Your task to perform on an android device: clear history in the chrome app Image 0: 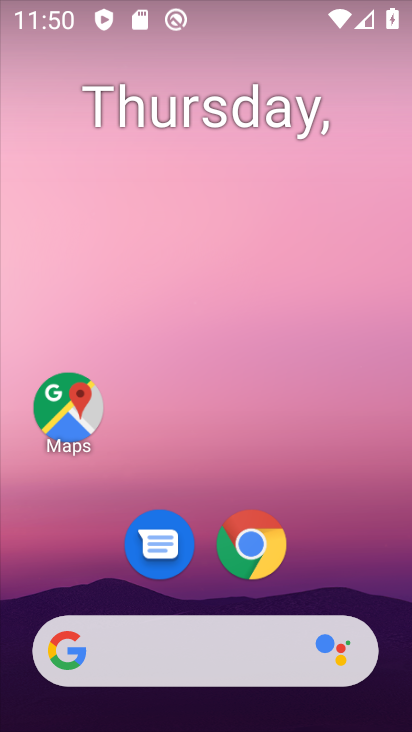
Step 0: drag from (230, 609) to (151, 84)
Your task to perform on an android device: clear history in the chrome app Image 1: 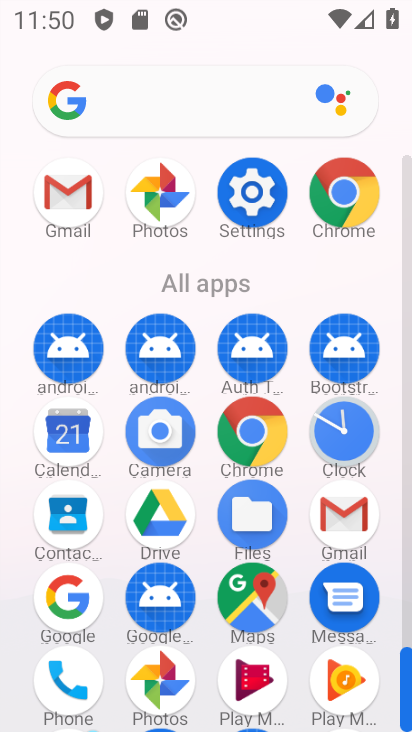
Step 1: click (342, 183)
Your task to perform on an android device: clear history in the chrome app Image 2: 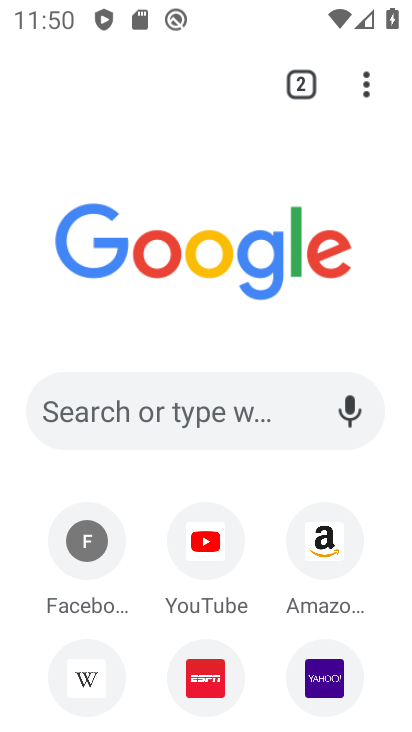
Step 2: click (368, 104)
Your task to perform on an android device: clear history in the chrome app Image 3: 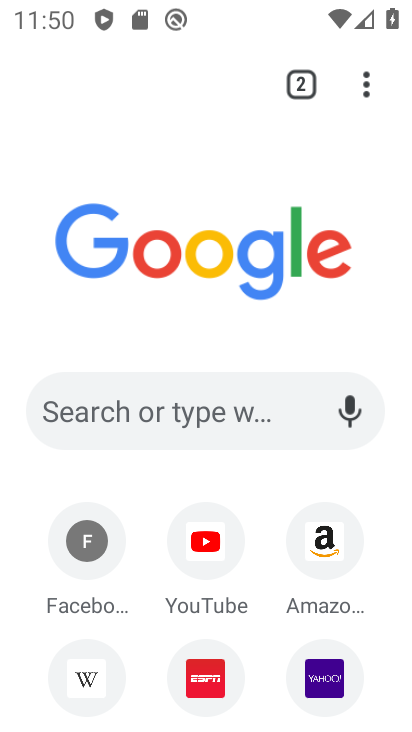
Step 3: task complete